Your task to perform on an android device: Show me productivity apps on the Play Store Image 0: 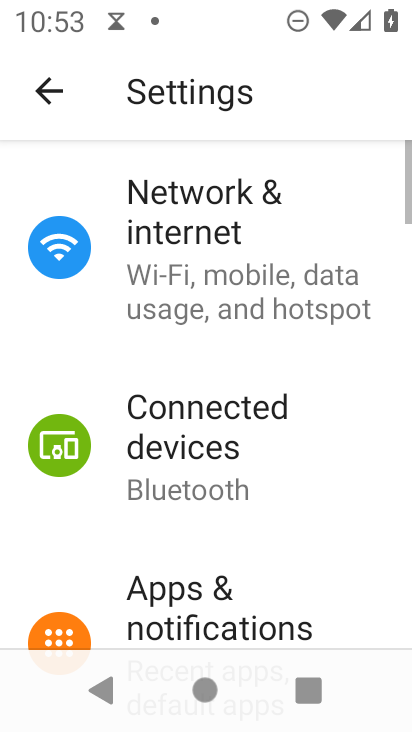
Step 0: press home button
Your task to perform on an android device: Show me productivity apps on the Play Store Image 1: 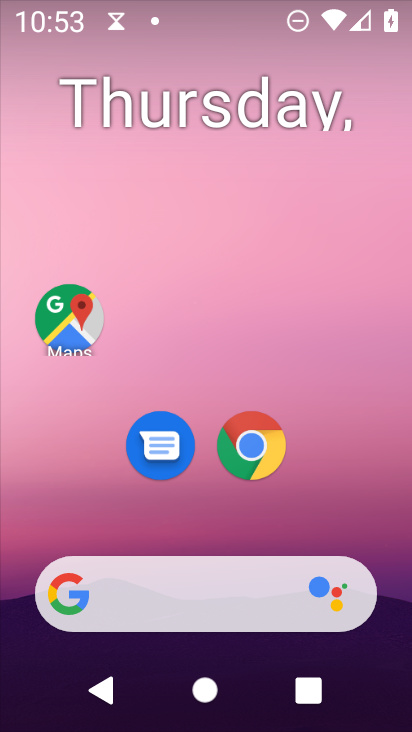
Step 1: drag from (236, 727) to (235, 49)
Your task to perform on an android device: Show me productivity apps on the Play Store Image 2: 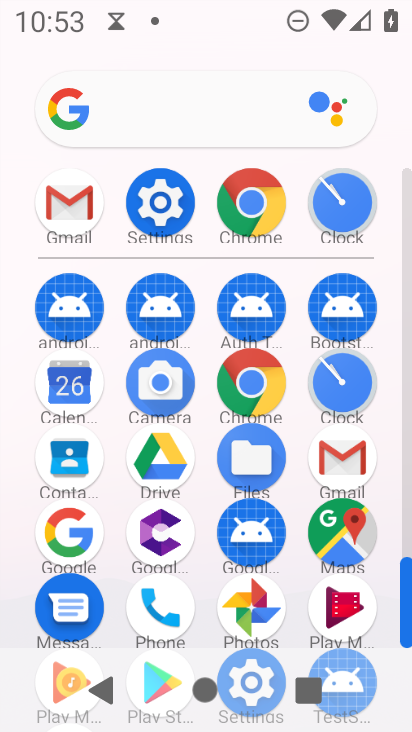
Step 2: drag from (301, 633) to (306, 180)
Your task to perform on an android device: Show me productivity apps on the Play Store Image 3: 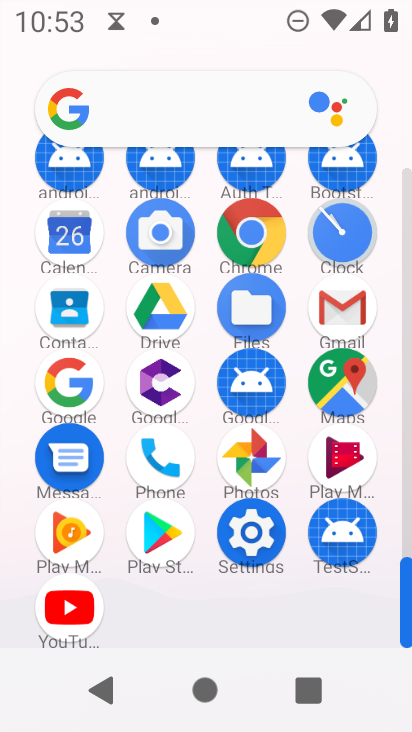
Step 3: click (158, 527)
Your task to perform on an android device: Show me productivity apps on the Play Store Image 4: 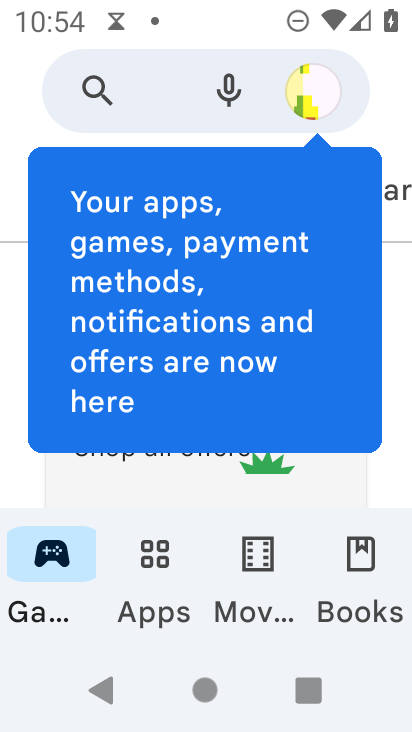
Step 4: click (149, 576)
Your task to perform on an android device: Show me productivity apps on the Play Store Image 5: 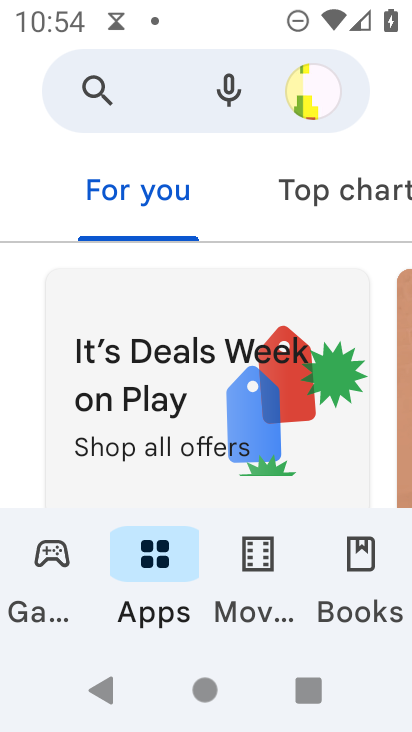
Step 5: drag from (370, 195) to (172, 192)
Your task to perform on an android device: Show me productivity apps on the Play Store Image 6: 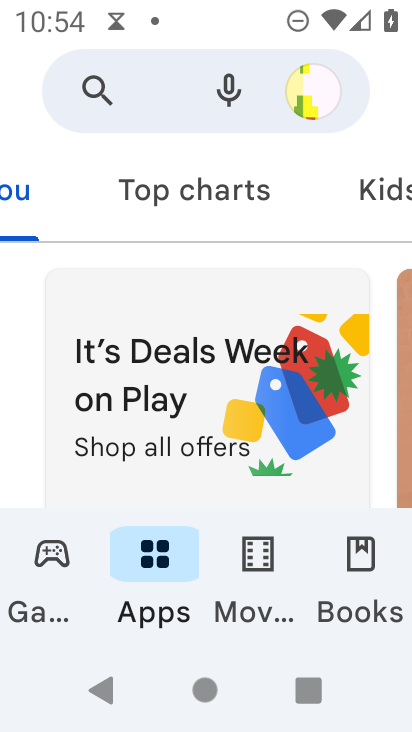
Step 6: drag from (382, 206) to (137, 208)
Your task to perform on an android device: Show me productivity apps on the Play Store Image 7: 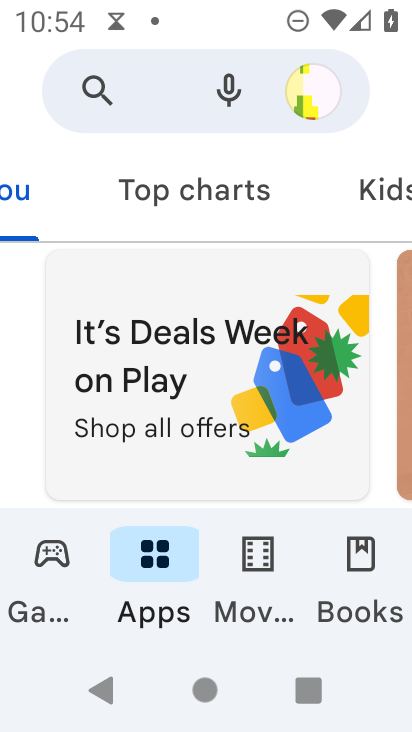
Step 7: drag from (372, 184) to (26, 217)
Your task to perform on an android device: Show me productivity apps on the Play Store Image 8: 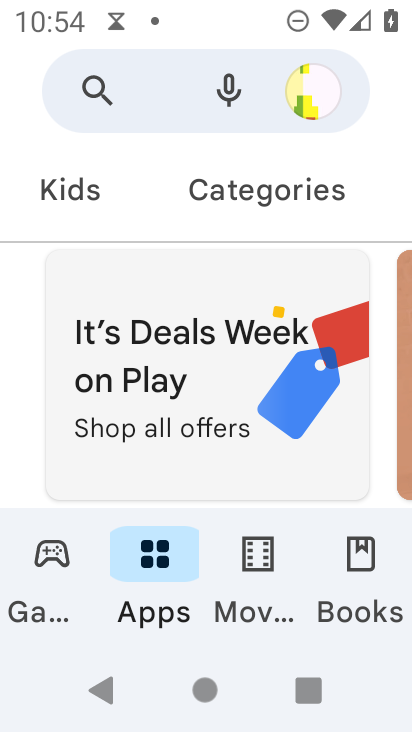
Step 8: click (267, 189)
Your task to perform on an android device: Show me productivity apps on the Play Store Image 9: 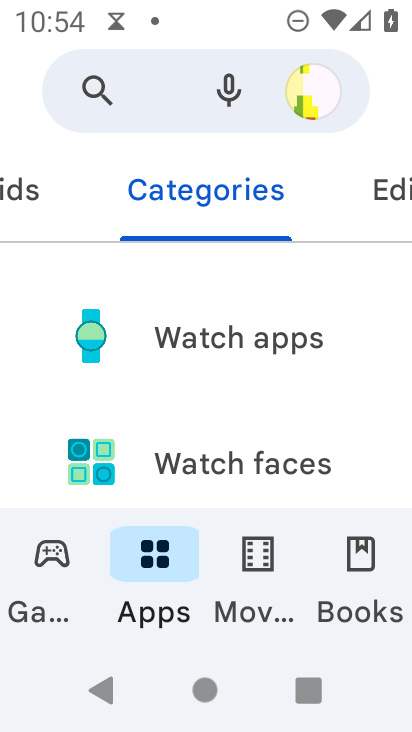
Step 9: drag from (331, 486) to (313, 122)
Your task to perform on an android device: Show me productivity apps on the Play Store Image 10: 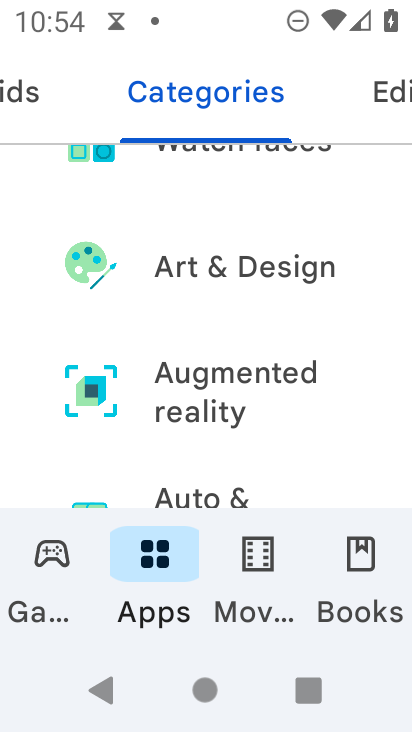
Step 10: drag from (328, 493) to (297, 34)
Your task to perform on an android device: Show me productivity apps on the Play Store Image 11: 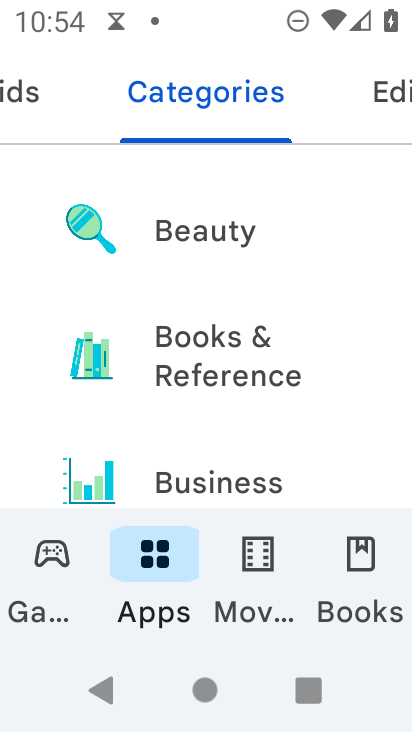
Step 11: drag from (336, 491) to (332, 7)
Your task to perform on an android device: Show me productivity apps on the Play Store Image 12: 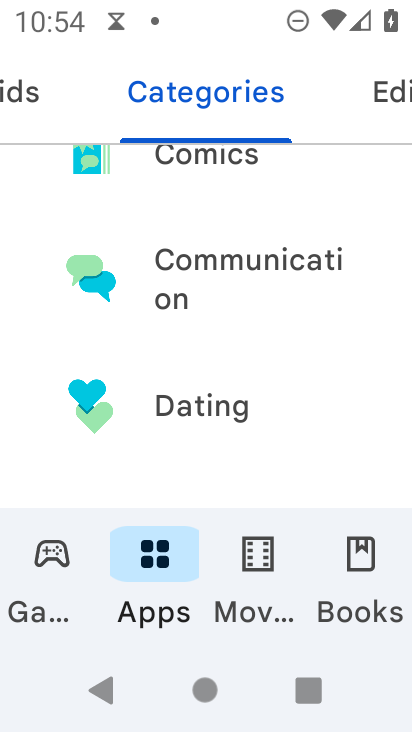
Step 12: drag from (339, 478) to (339, 20)
Your task to perform on an android device: Show me productivity apps on the Play Store Image 13: 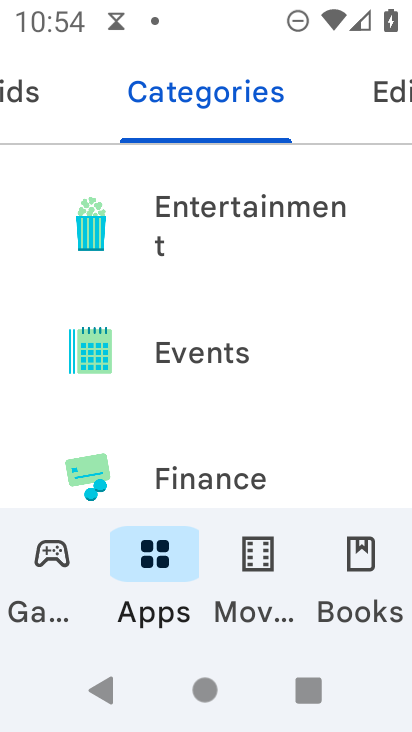
Step 13: drag from (329, 485) to (321, 72)
Your task to perform on an android device: Show me productivity apps on the Play Store Image 14: 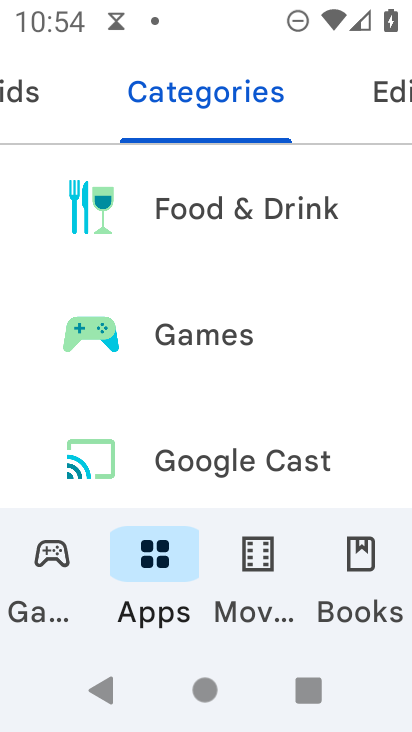
Step 14: drag from (342, 488) to (344, 58)
Your task to perform on an android device: Show me productivity apps on the Play Store Image 15: 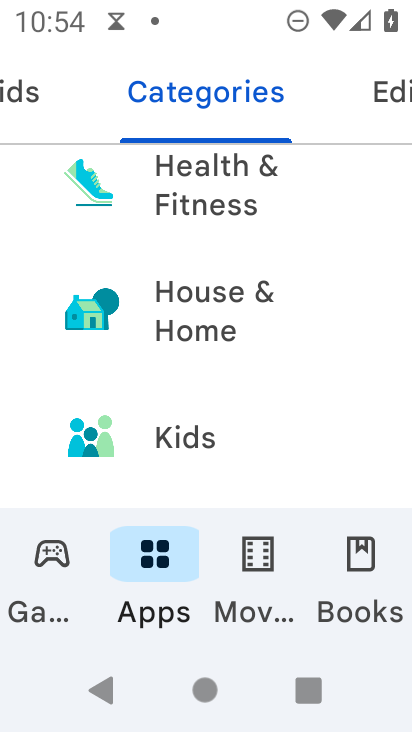
Step 15: drag from (337, 489) to (339, 40)
Your task to perform on an android device: Show me productivity apps on the Play Store Image 16: 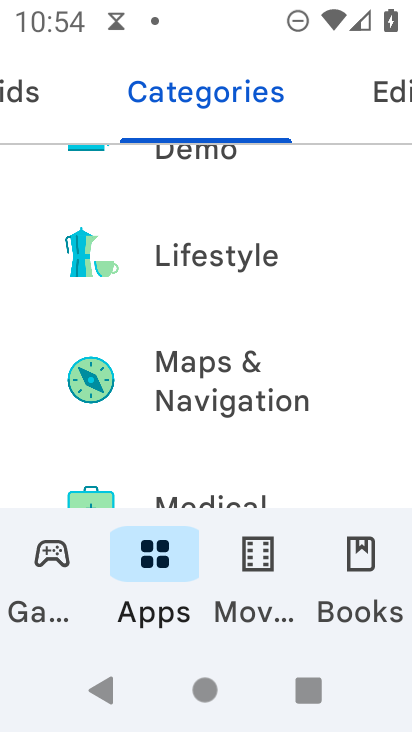
Step 16: drag from (317, 496) to (317, 98)
Your task to perform on an android device: Show me productivity apps on the Play Store Image 17: 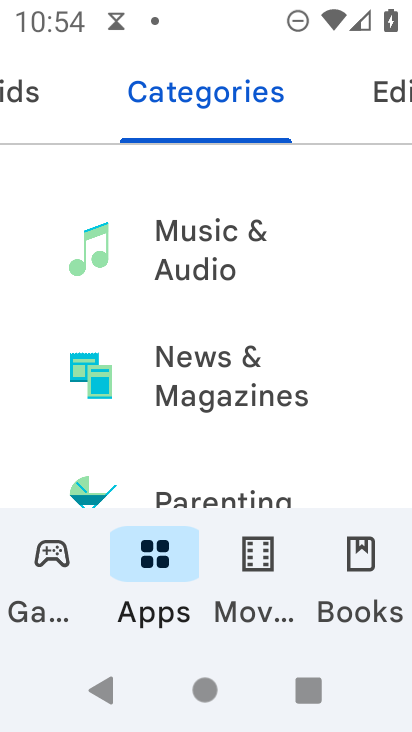
Step 17: drag from (318, 497) to (320, 95)
Your task to perform on an android device: Show me productivity apps on the Play Store Image 18: 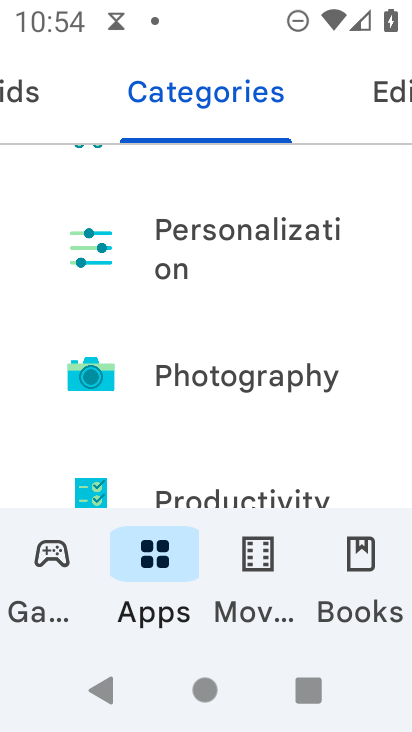
Step 18: click (287, 496)
Your task to perform on an android device: Show me productivity apps on the Play Store Image 19: 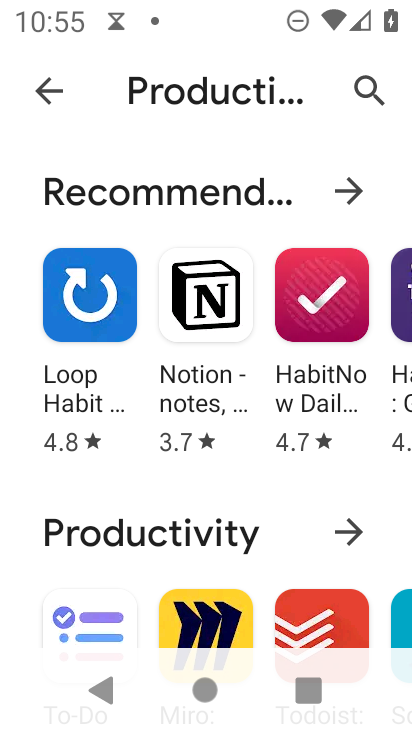
Step 19: task complete